Your task to perform on an android device: Clear the shopping cart on bestbuy. Add "usb-a" to the cart on bestbuy, then select checkout. Image 0: 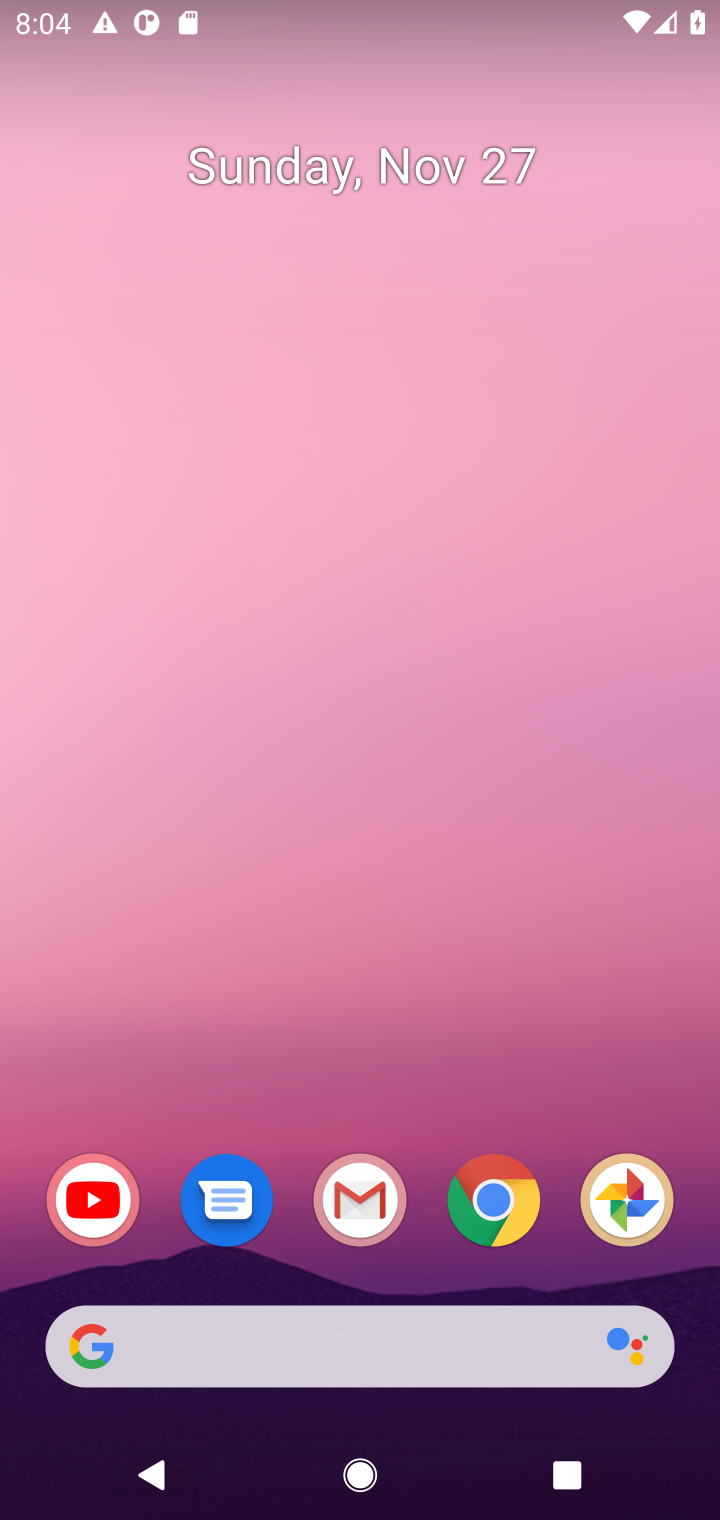
Step 0: click (493, 1207)
Your task to perform on an android device: Clear the shopping cart on bestbuy. Add "usb-a" to the cart on bestbuy, then select checkout. Image 1: 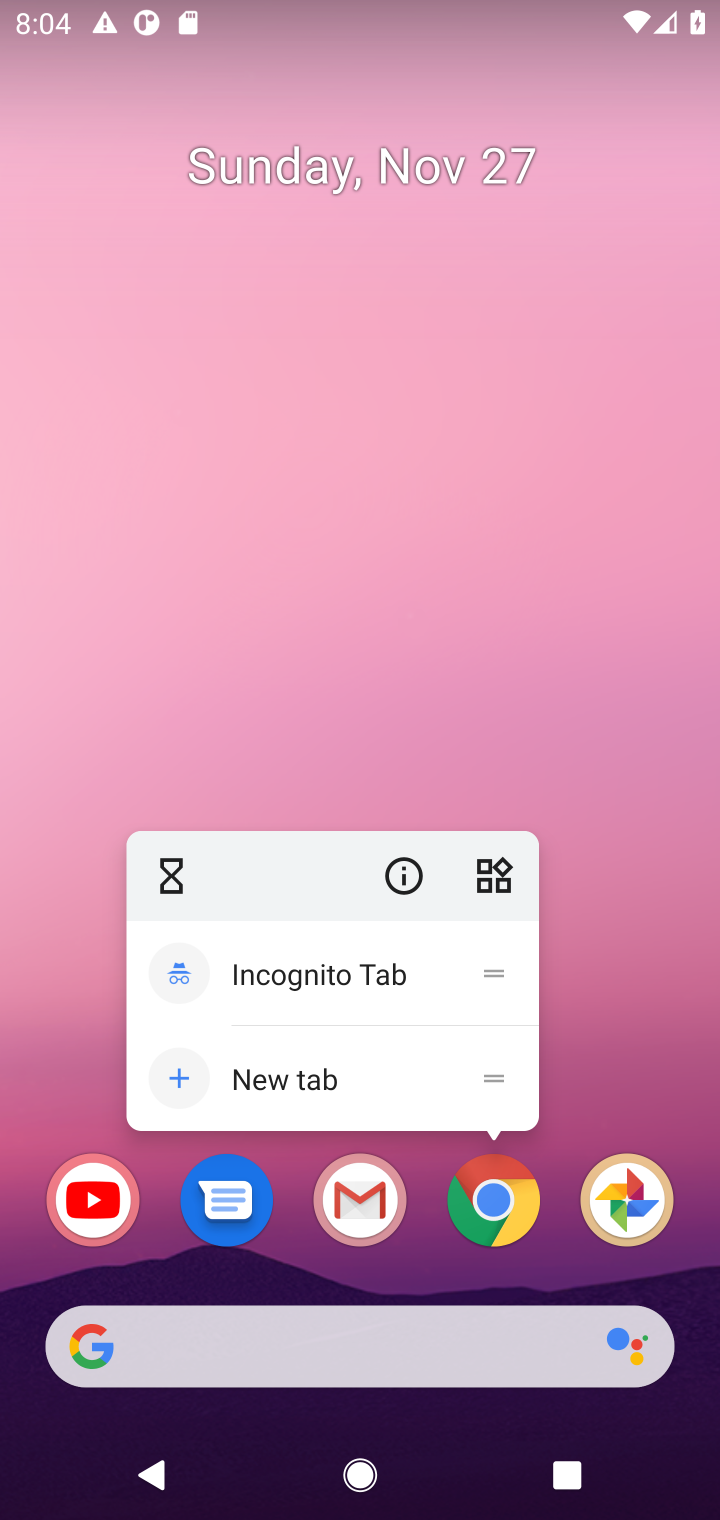
Step 1: click (493, 1207)
Your task to perform on an android device: Clear the shopping cart on bestbuy. Add "usb-a" to the cart on bestbuy, then select checkout. Image 2: 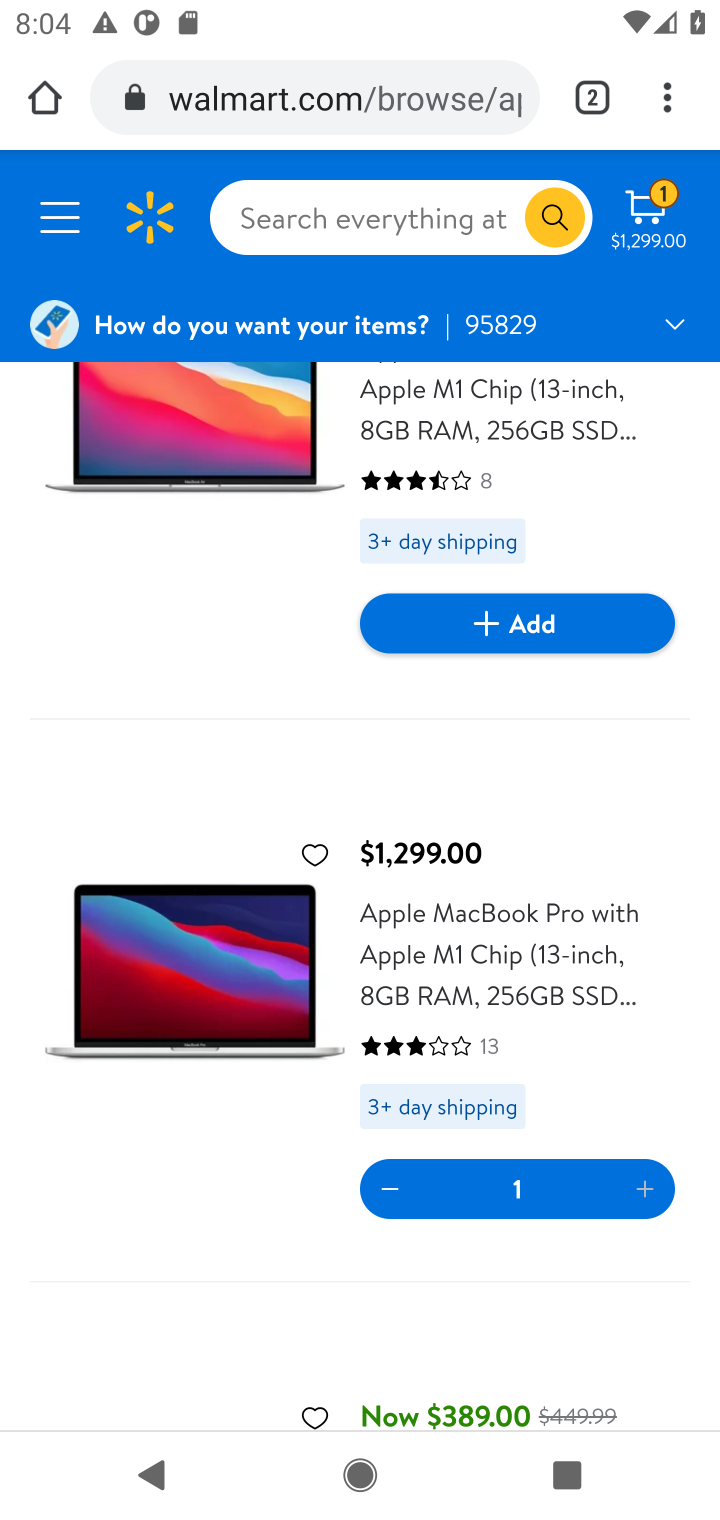
Step 2: click (353, 92)
Your task to perform on an android device: Clear the shopping cart on bestbuy. Add "usb-a" to the cart on bestbuy, then select checkout. Image 3: 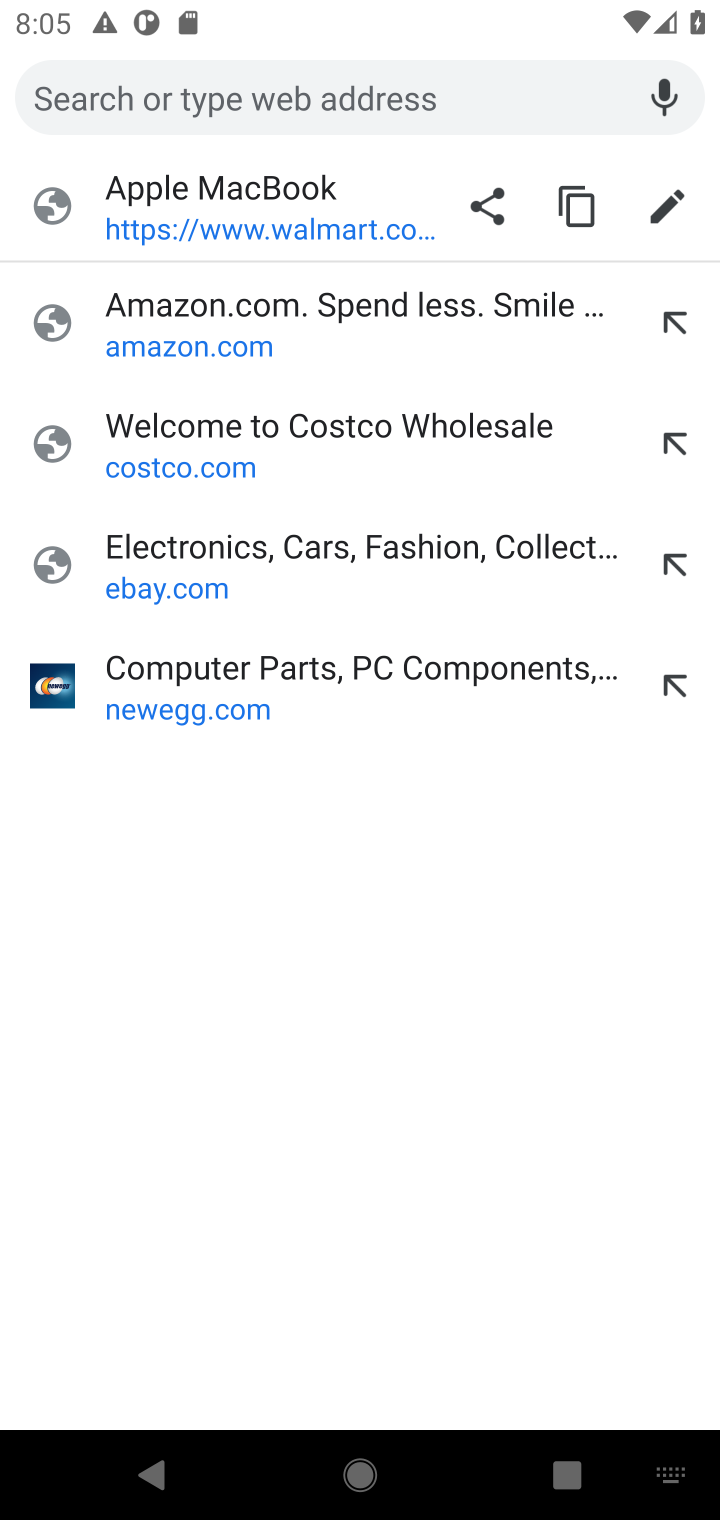
Step 3: type "bestbuy.com"
Your task to perform on an android device: Clear the shopping cart on bestbuy. Add "usb-a" to the cart on bestbuy, then select checkout. Image 4: 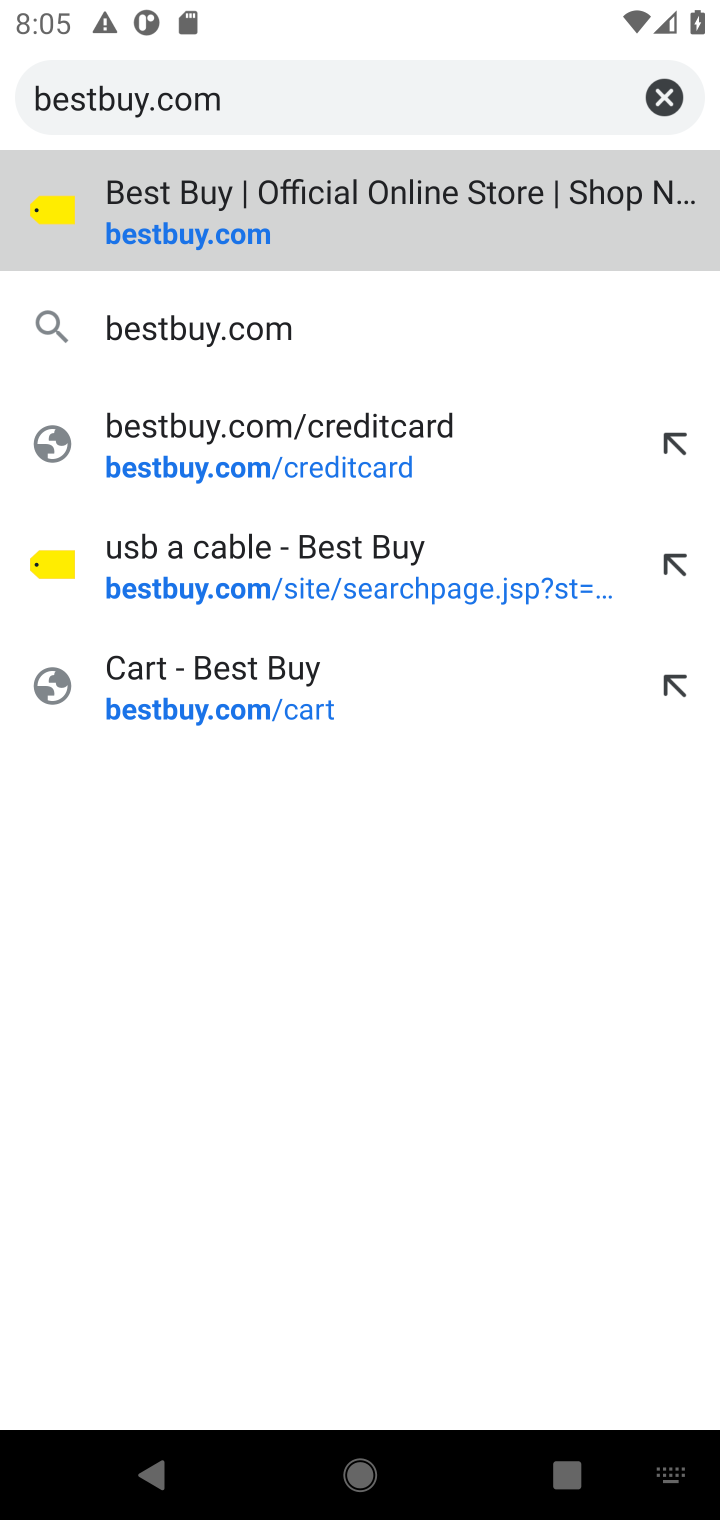
Step 4: click (114, 238)
Your task to perform on an android device: Clear the shopping cart on bestbuy. Add "usb-a" to the cart on bestbuy, then select checkout. Image 5: 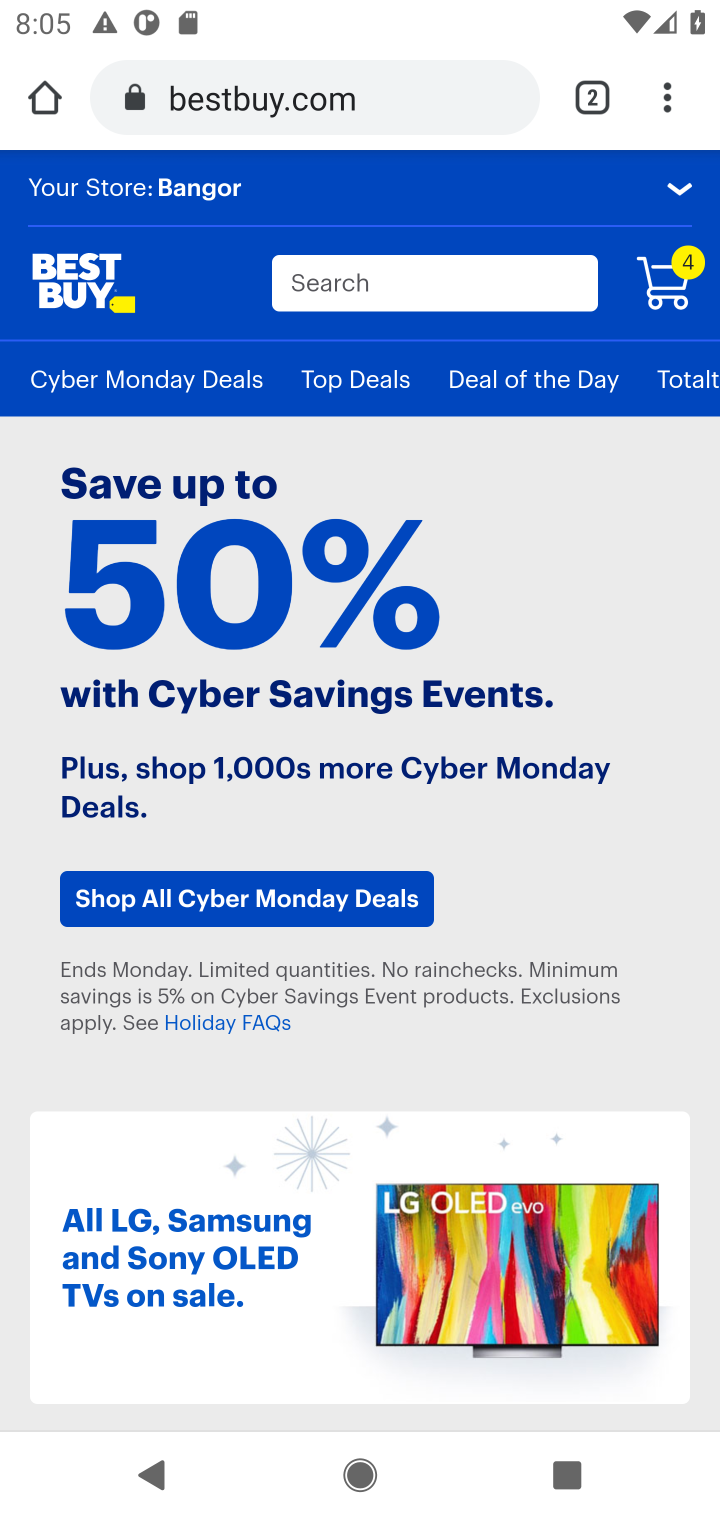
Step 5: click (680, 291)
Your task to perform on an android device: Clear the shopping cart on bestbuy. Add "usb-a" to the cart on bestbuy, then select checkout. Image 6: 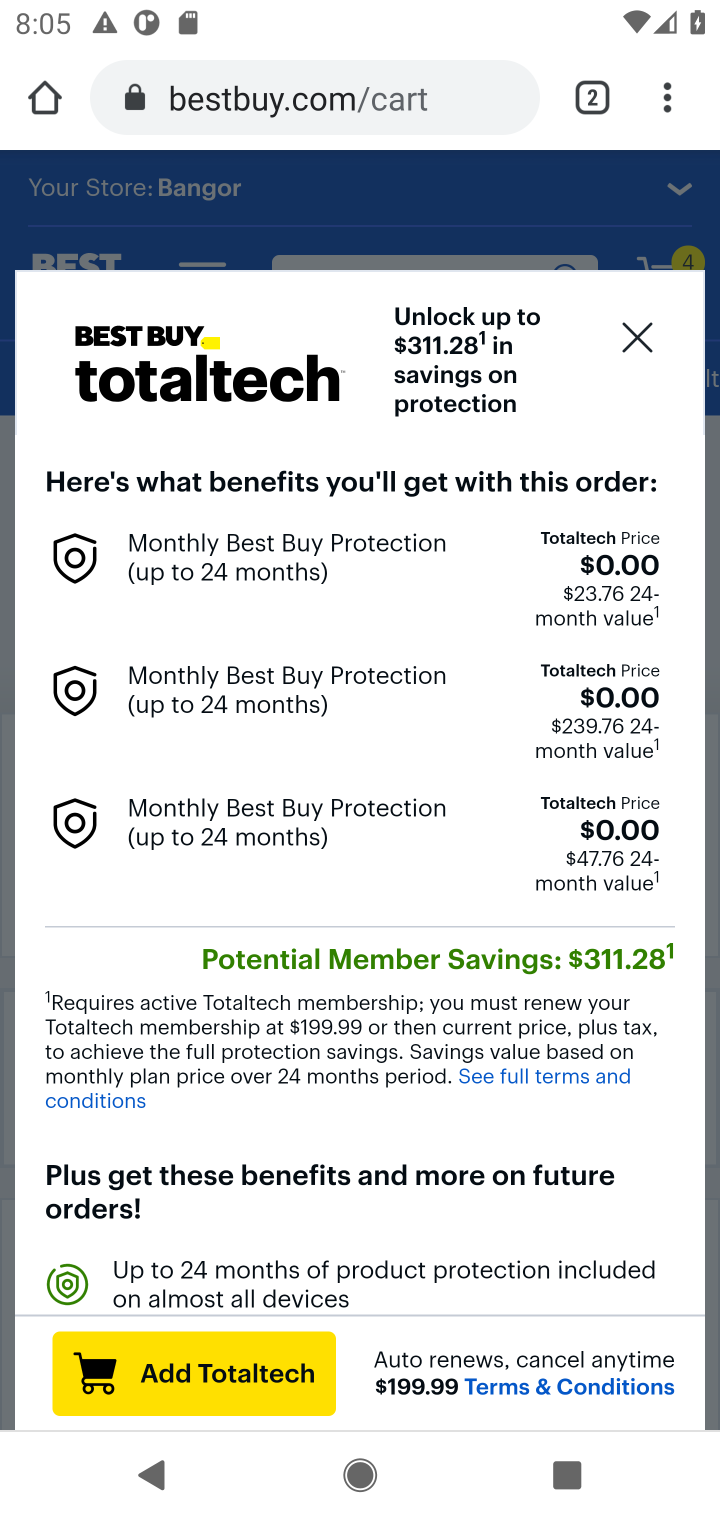
Step 6: click (629, 357)
Your task to perform on an android device: Clear the shopping cart on bestbuy. Add "usb-a" to the cart on bestbuy, then select checkout. Image 7: 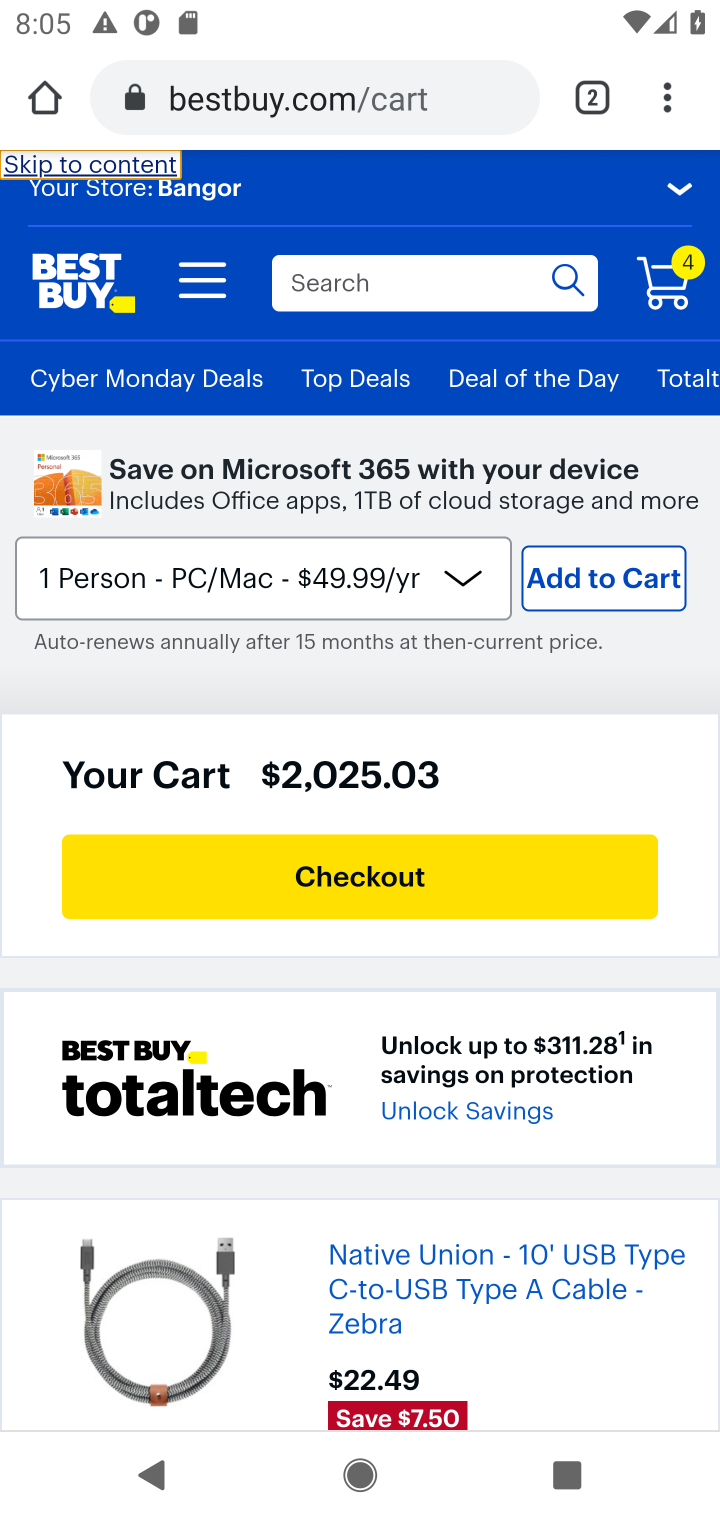
Step 7: drag from (223, 934) to (186, 517)
Your task to perform on an android device: Clear the shopping cart on bestbuy. Add "usb-a" to the cart on bestbuy, then select checkout. Image 8: 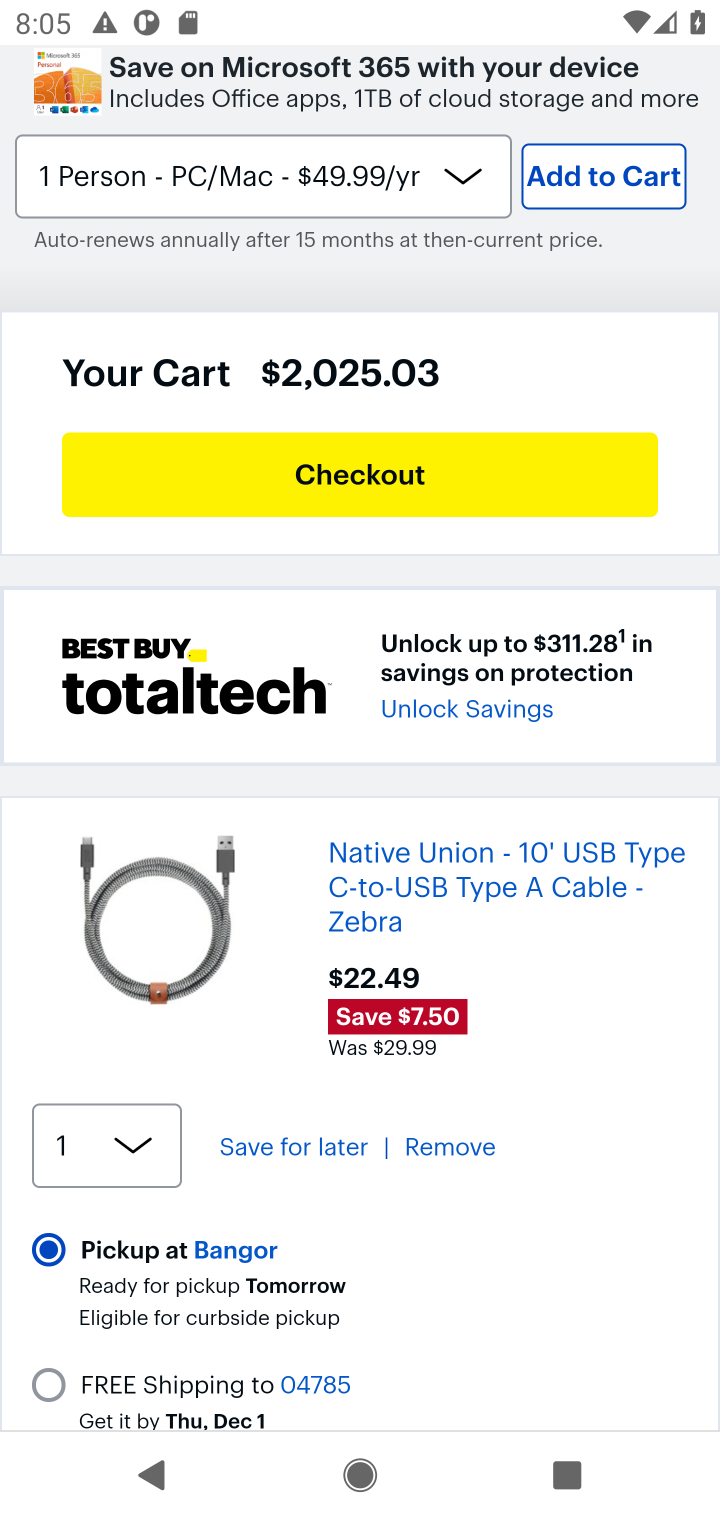
Step 8: click (450, 1148)
Your task to perform on an android device: Clear the shopping cart on bestbuy. Add "usb-a" to the cart on bestbuy, then select checkout. Image 9: 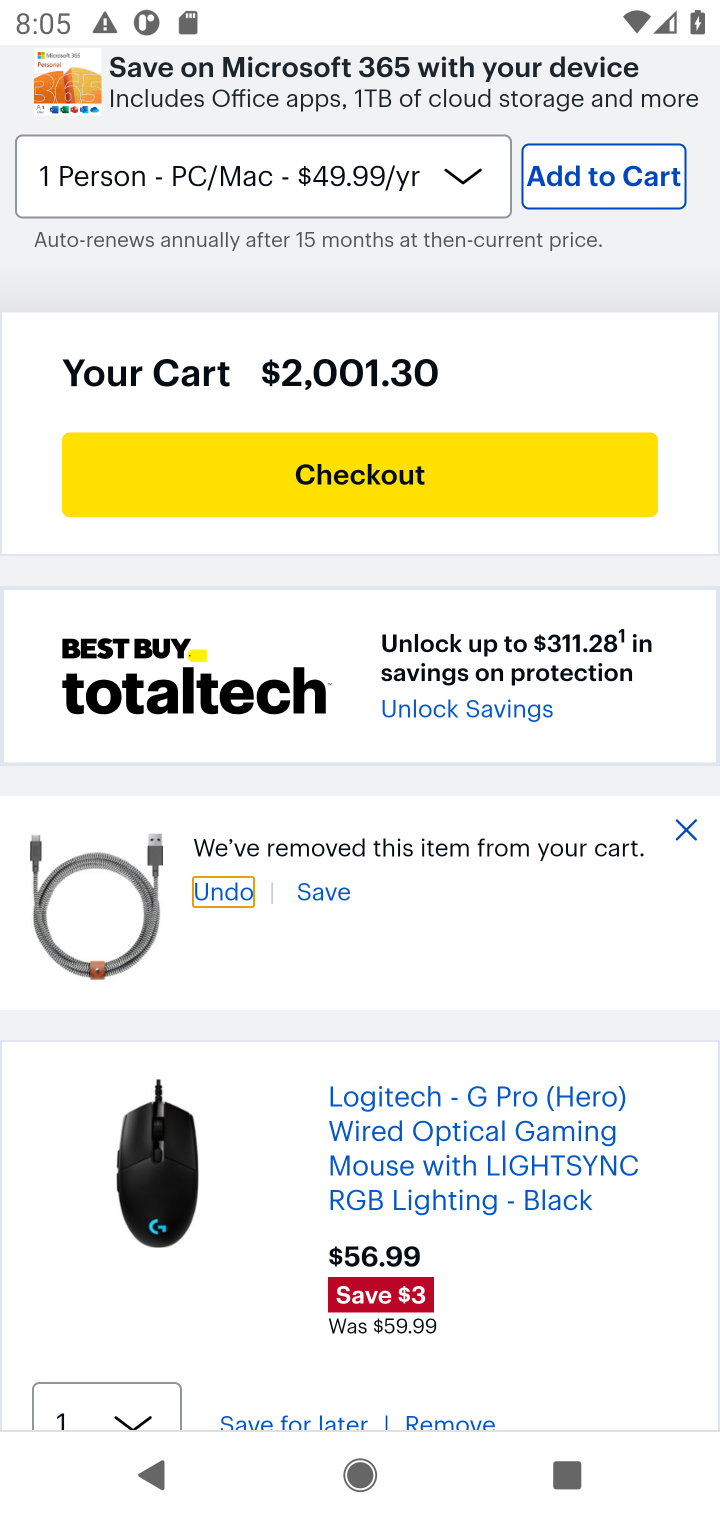
Step 9: drag from (271, 1086) to (136, 825)
Your task to perform on an android device: Clear the shopping cart on bestbuy. Add "usb-a" to the cart on bestbuy, then select checkout. Image 10: 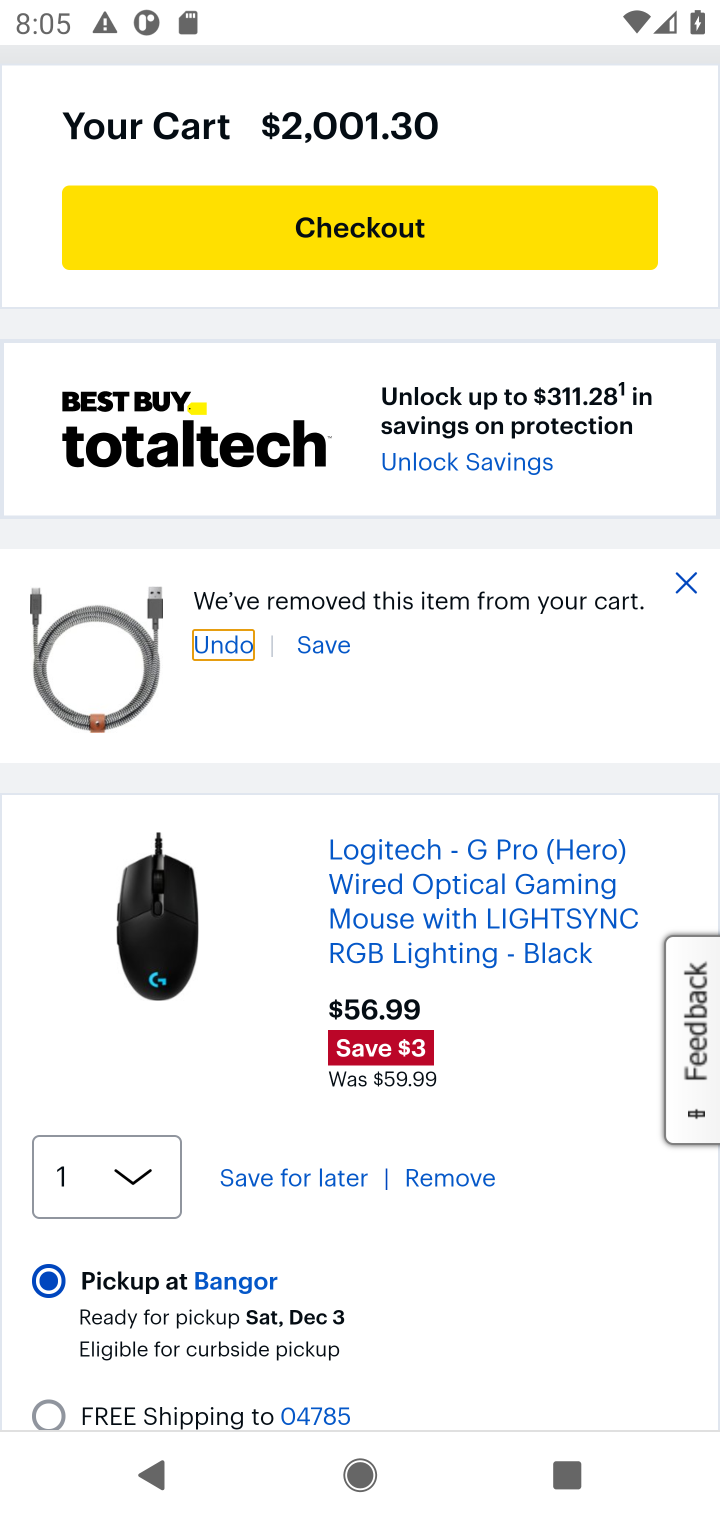
Step 10: click (410, 1189)
Your task to perform on an android device: Clear the shopping cart on bestbuy. Add "usb-a" to the cart on bestbuy, then select checkout. Image 11: 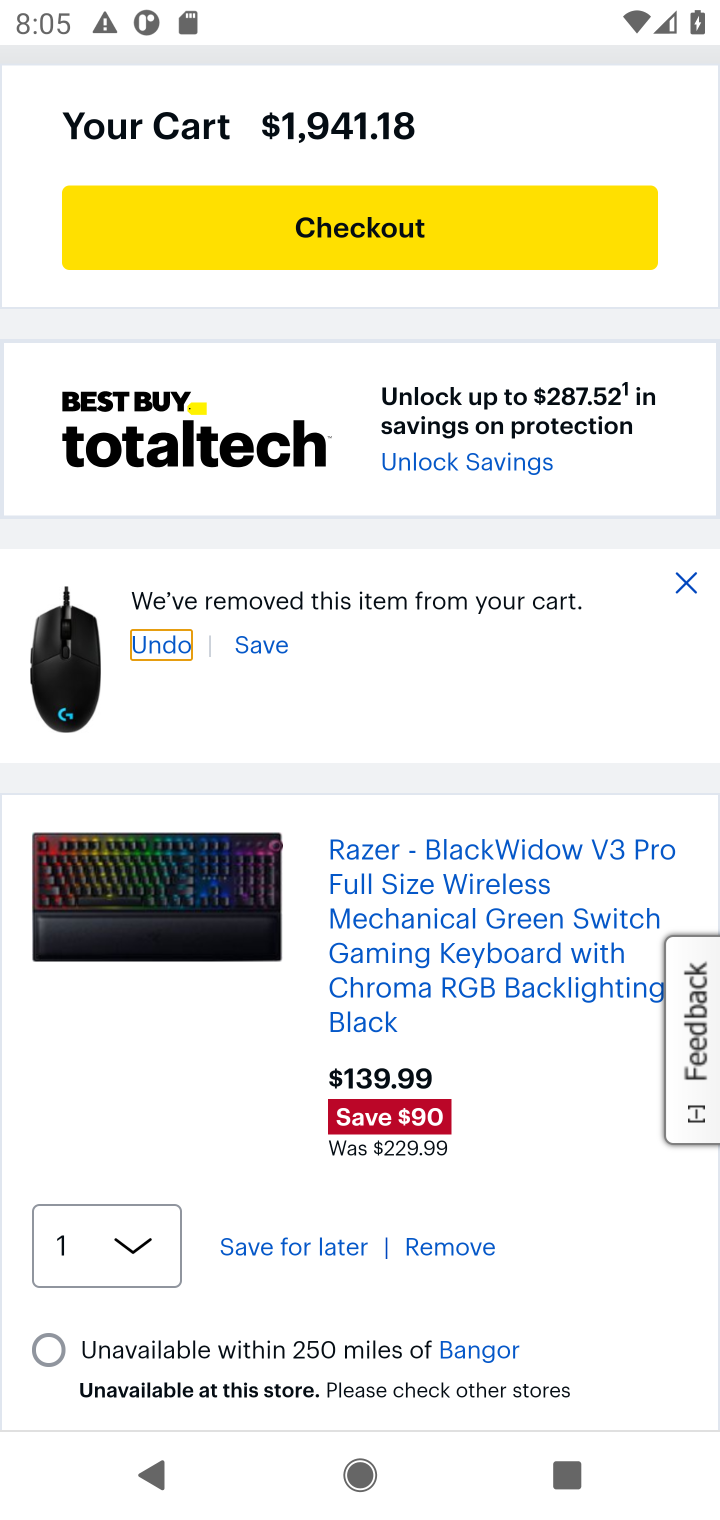
Step 11: click (431, 1249)
Your task to perform on an android device: Clear the shopping cart on bestbuy. Add "usb-a" to the cart on bestbuy, then select checkout. Image 12: 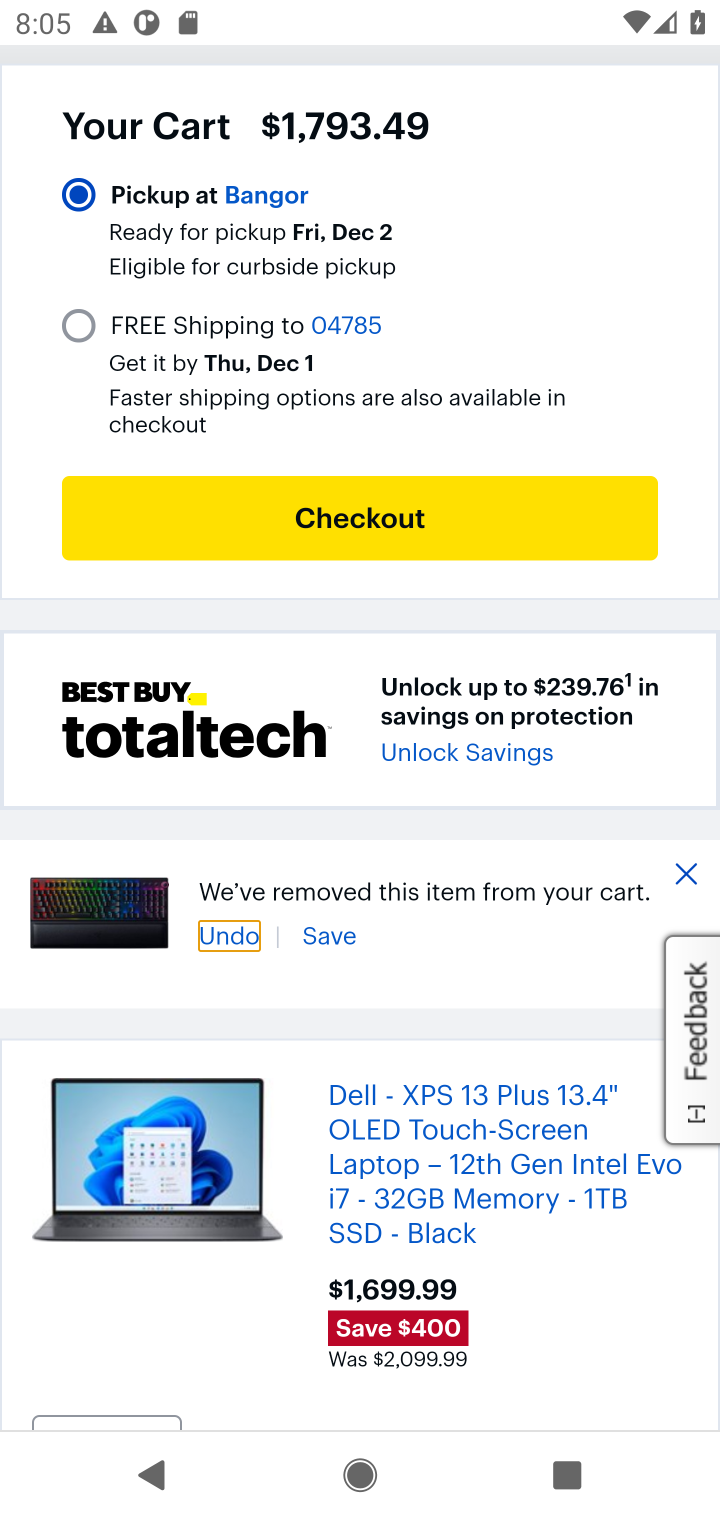
Step 12: drag from (433, 1197) to (392, 904)
Your task to perform on an android device: Clear the shopping cart on bestbuy. Add "usb-a" to the cart on bestbuy, then select checkout. Image 13: 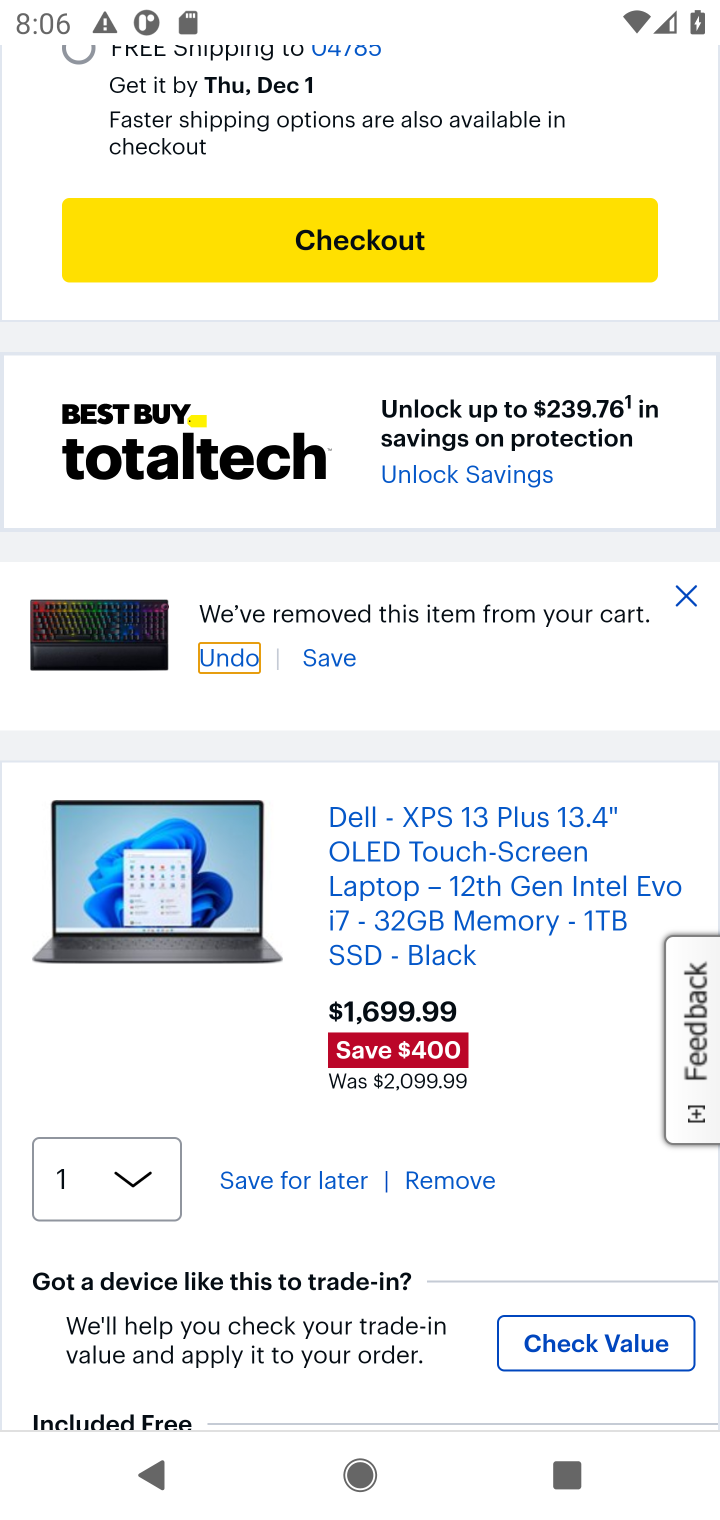
Step 13: click (453, 1179)
Your task to perform on an android device: Clear the shopping cart on bestbuy. Add "usb-a" to the cart on bestbuy, then select checkout. Image 14: 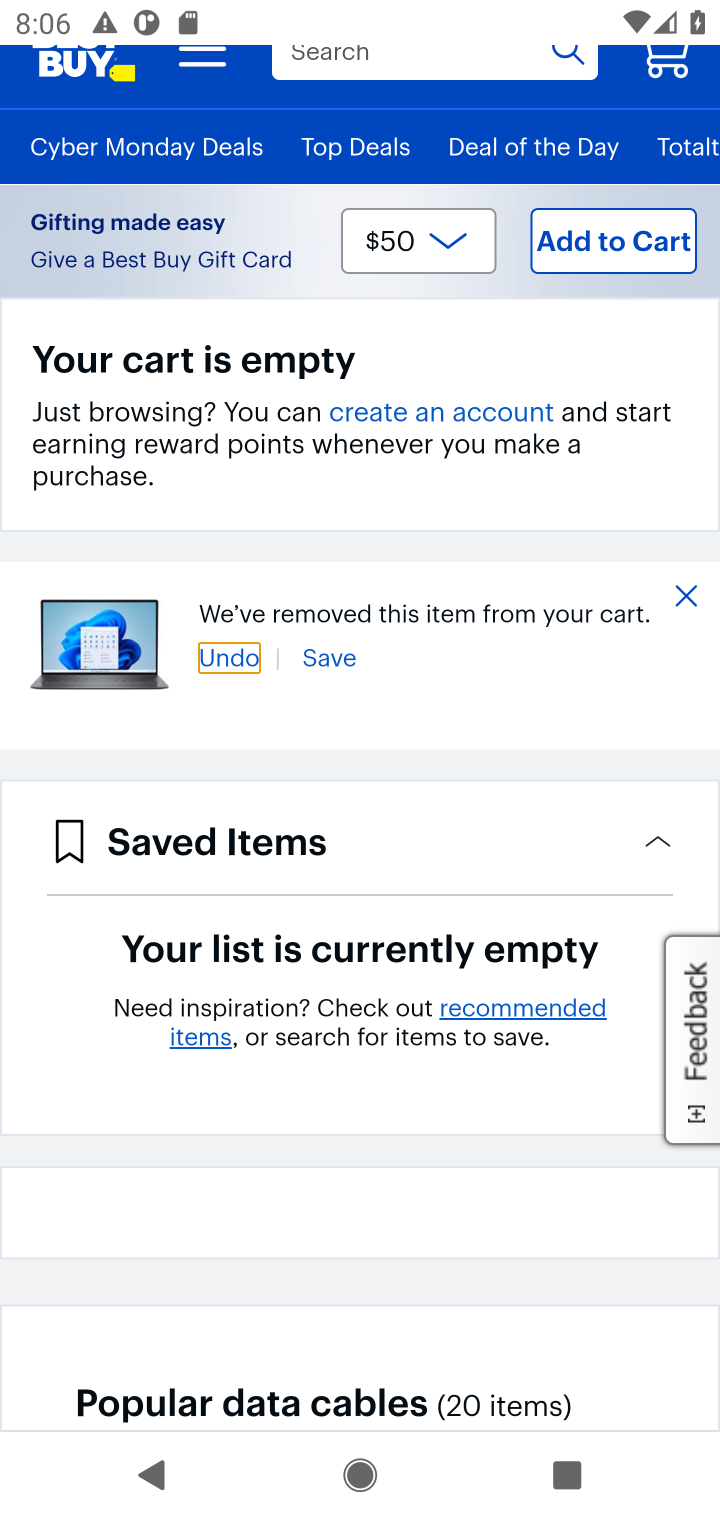
Step 14: drag from (490, 361) to (478, 608)
Your task to perform on an android device: Clear the shopping cart on bestbuy. Add "usb-a" to the cart on bestbuy, then select checkout. Image 15: 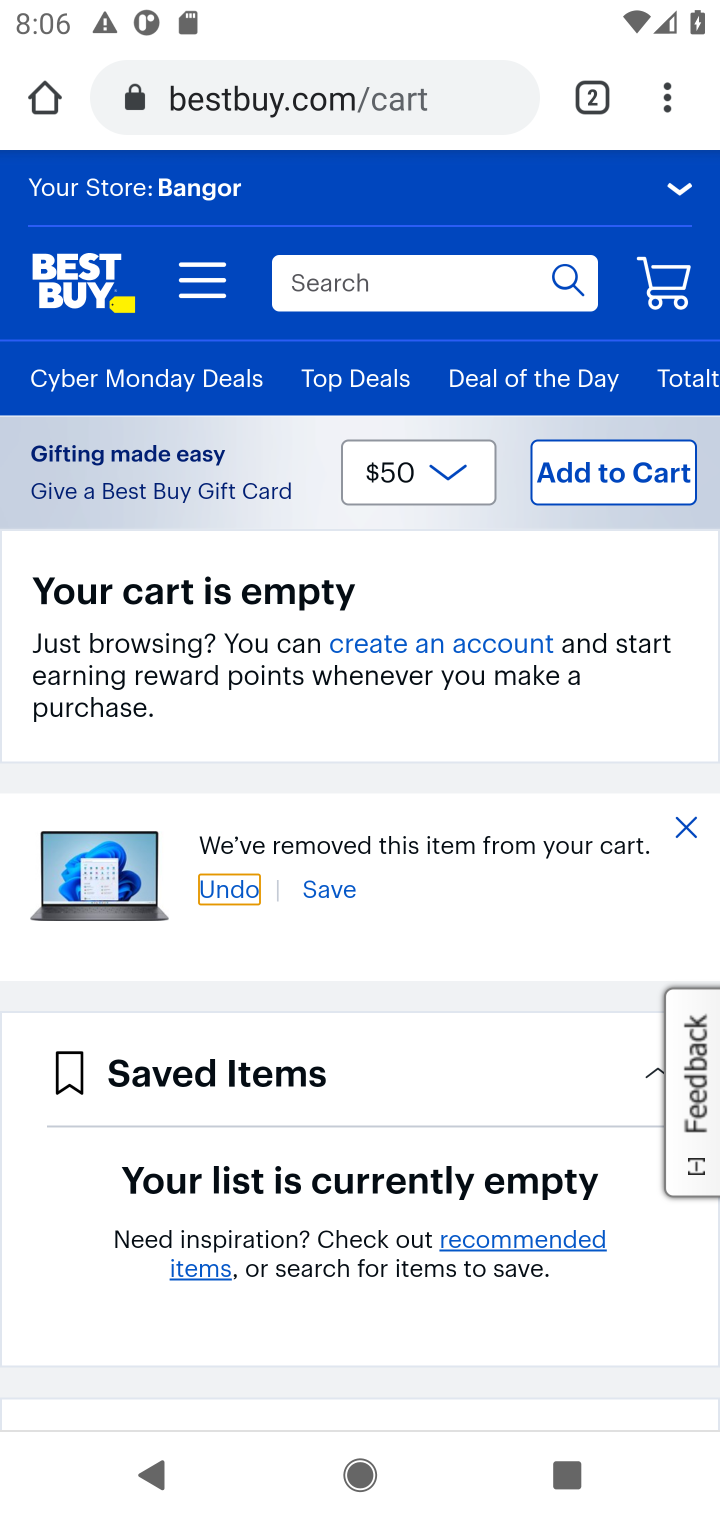
Step 15: click (314, 281)
Your task to perform on an android device: Clear the shopping cart on bestbuy. Add "usb-a" to the cart on bestbuy, then select checkout. Image 16: 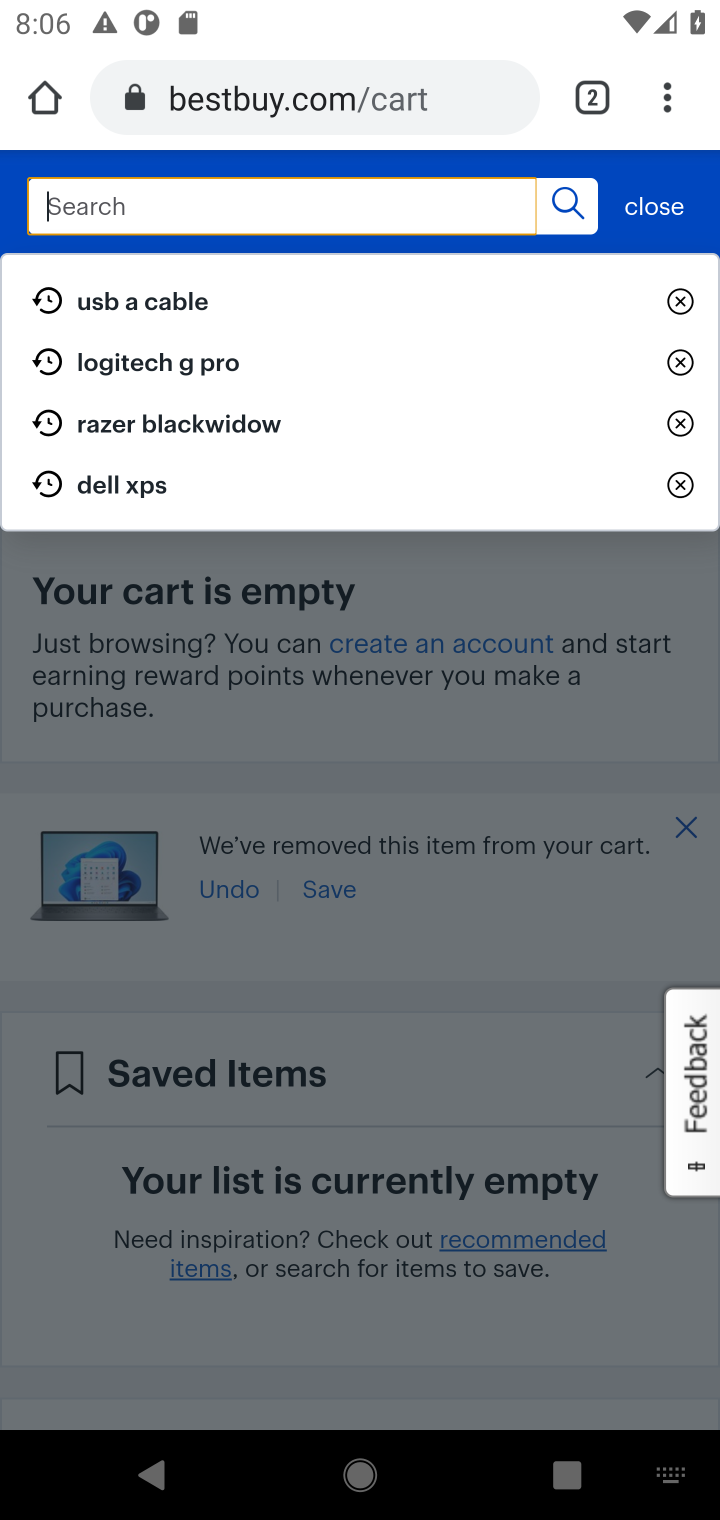
Step 16: type "usb-a"
Your task to perform on an android device: Clear the shopping cart on bestbuy. Add "usb-a" to the cart on bestbuy, then select checkout. Image 17: 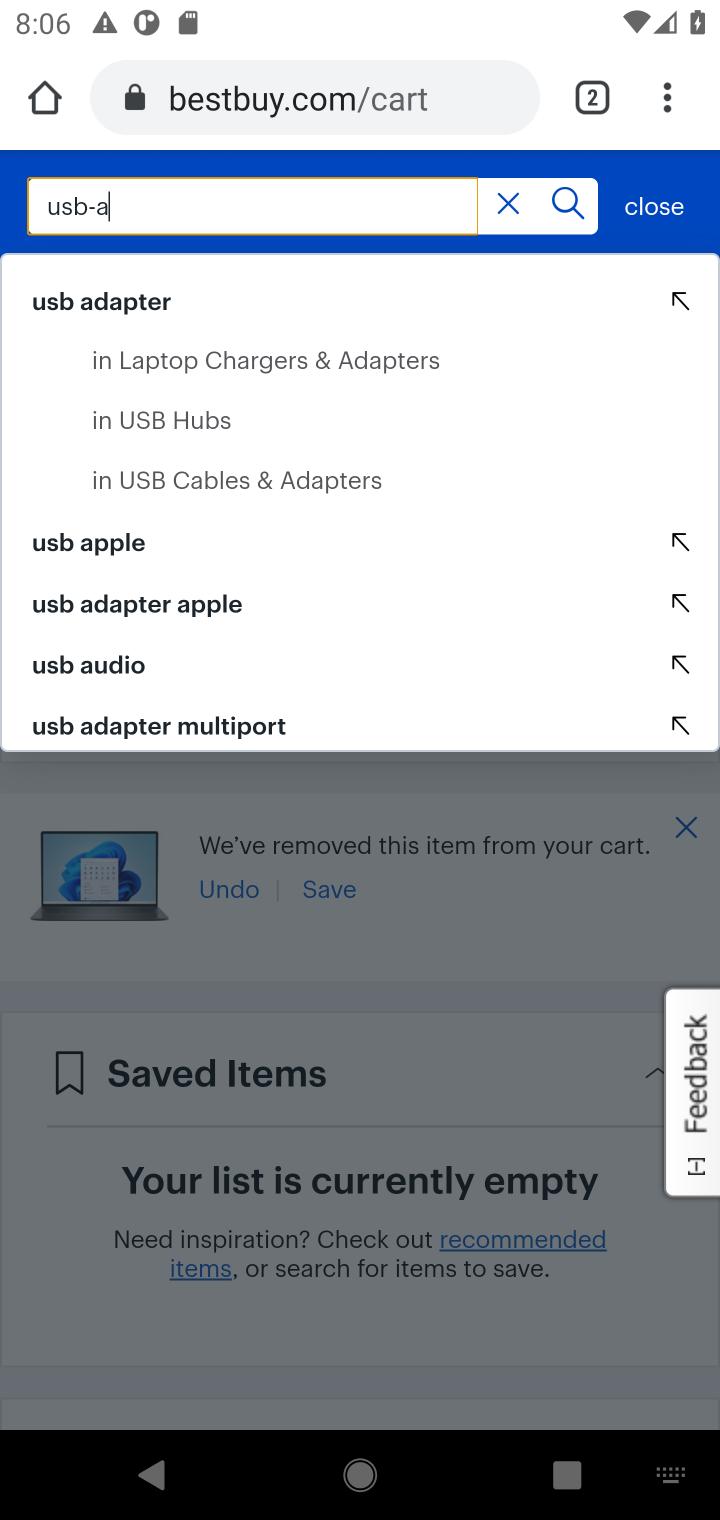
Step 17: click (572, 203)
Your task to perform on an android device: Clear the shopping cart on bestbuy. Add "usb-a" to the cart on bestbuy, then select checkout. Image 18: 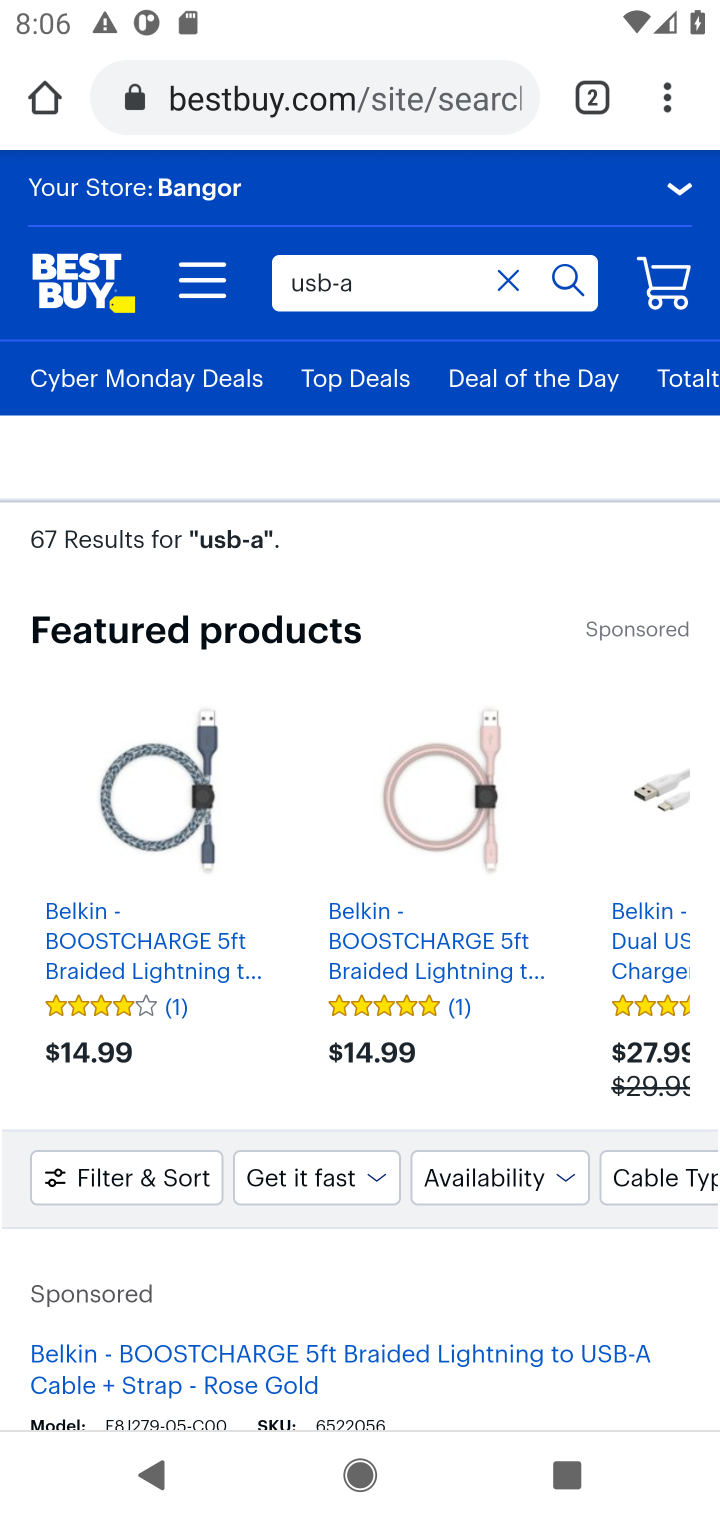
Step 18: drag from (200, 1103) to (227, 584)
Your task to perform on an android device: Clear the shopping cart on bestbuy. Add "usb-a" to the cart on bestbuy, then select checkout. Image 19: 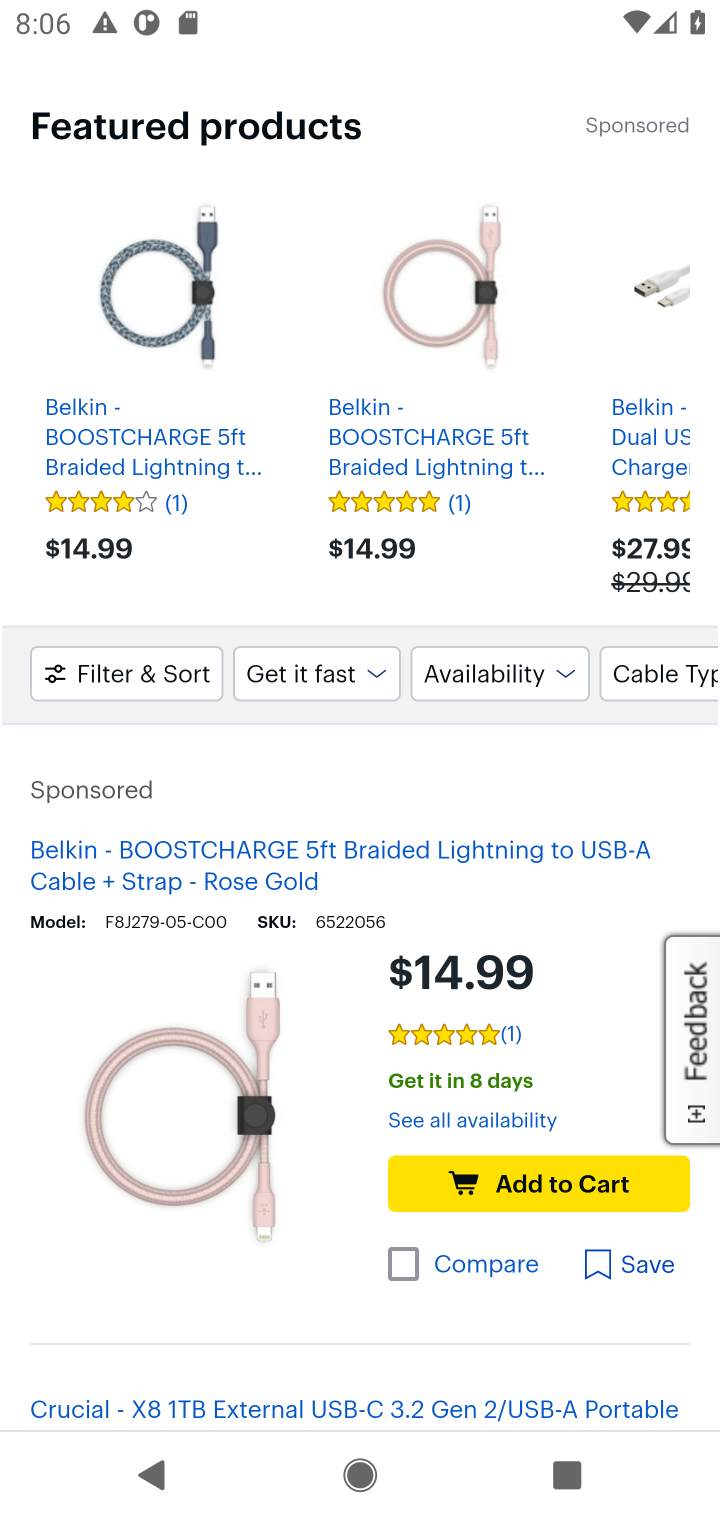
Step 19: click (492, 1186)
Your task to perform on an android device: Clear the shopping cart on bestbuy. Add "usb-a" to the cart on bestbuy, then select checkout. Image 20: 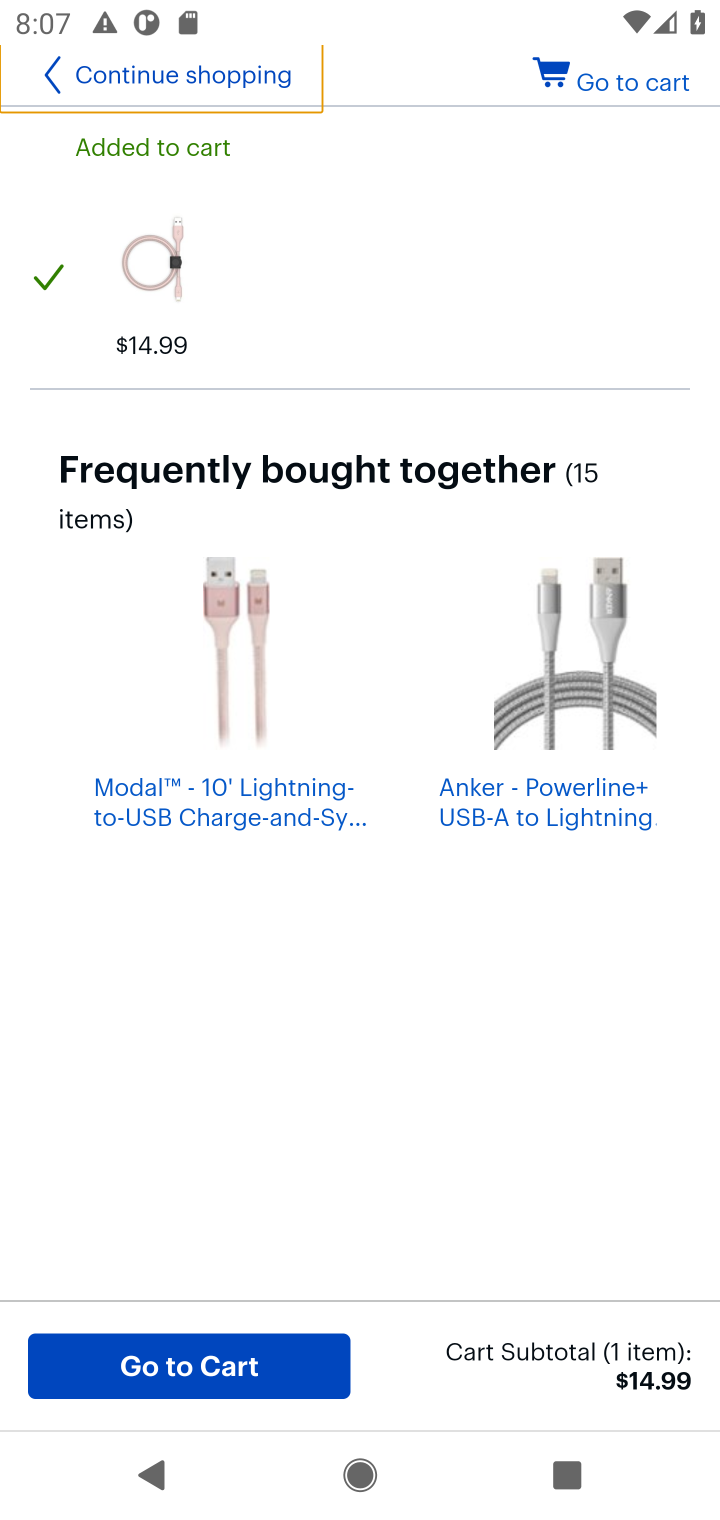
Step 20: click (632, 110)
Your task to perform on an android device: Clear the shopping cart on bestbuy. Add "usb-a" to the cart on bestbuy, then select checkout. Image 21: 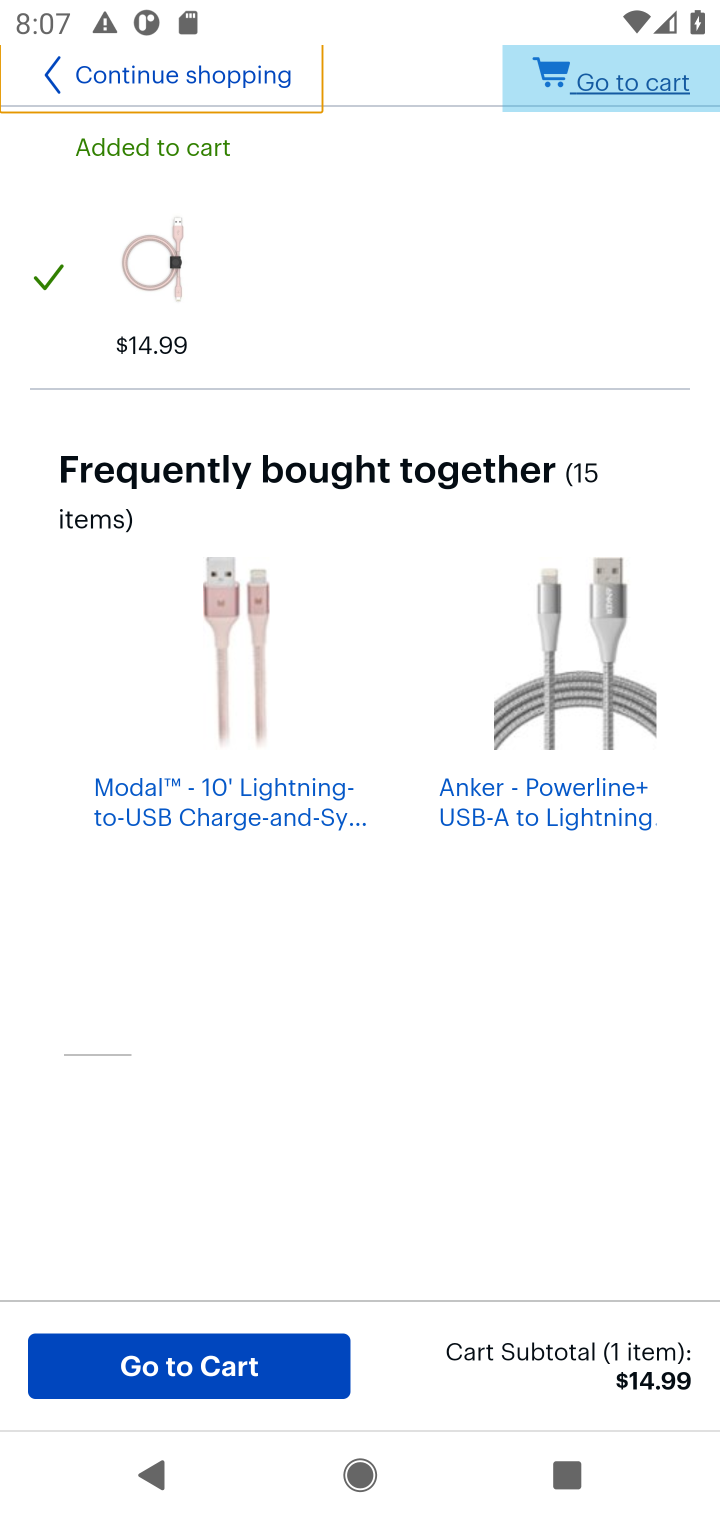
Step 21: click (633, 81)
Your task to perform on an android device: Clear the shopping cart on bestbuy. Add "usb-a" to the cart on bestbuy, then select checkout. Image 22: 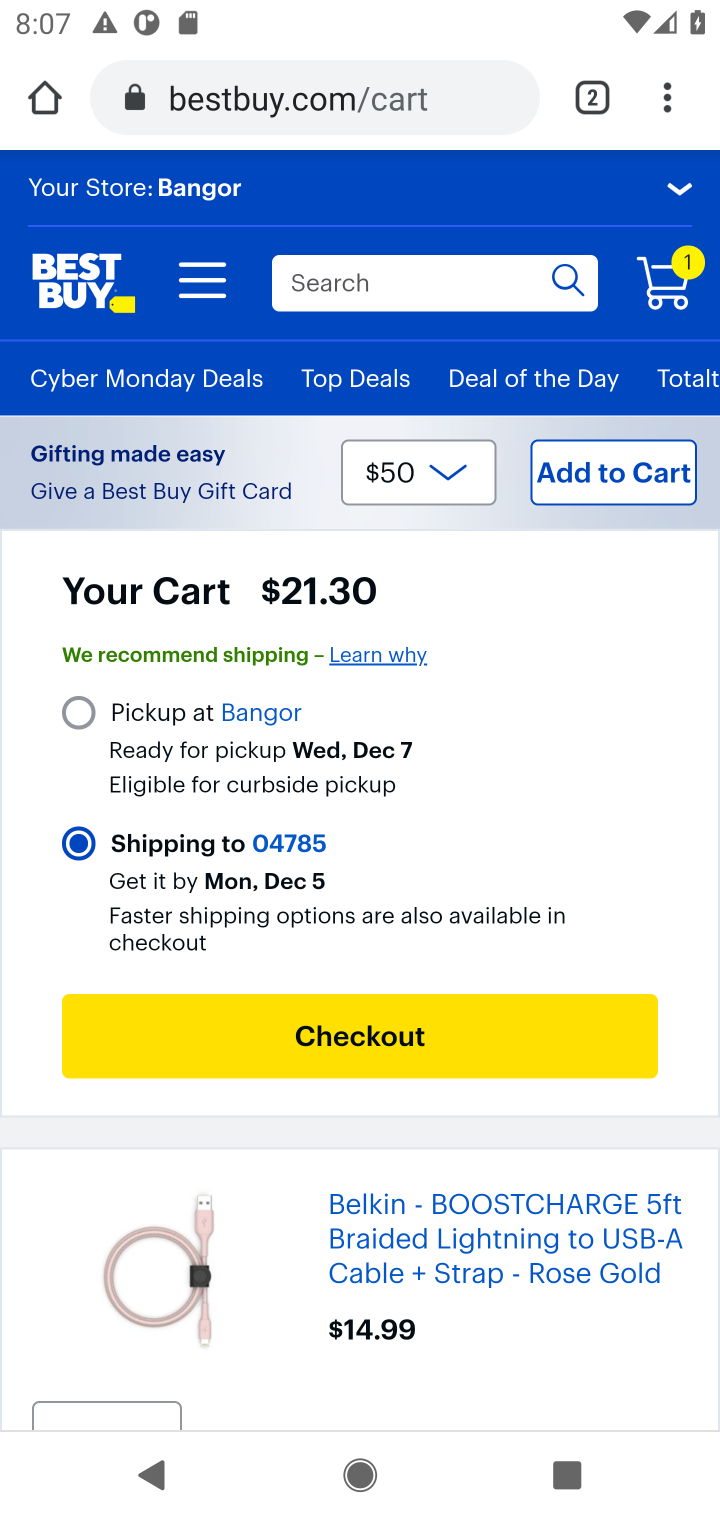
Step 22: click (334, 1046)
Your task to perform on an android device: Clear the shopping cart on bestbuy. Add "usb-a" to the cart on bestbuy, then select checkout. Image 23: 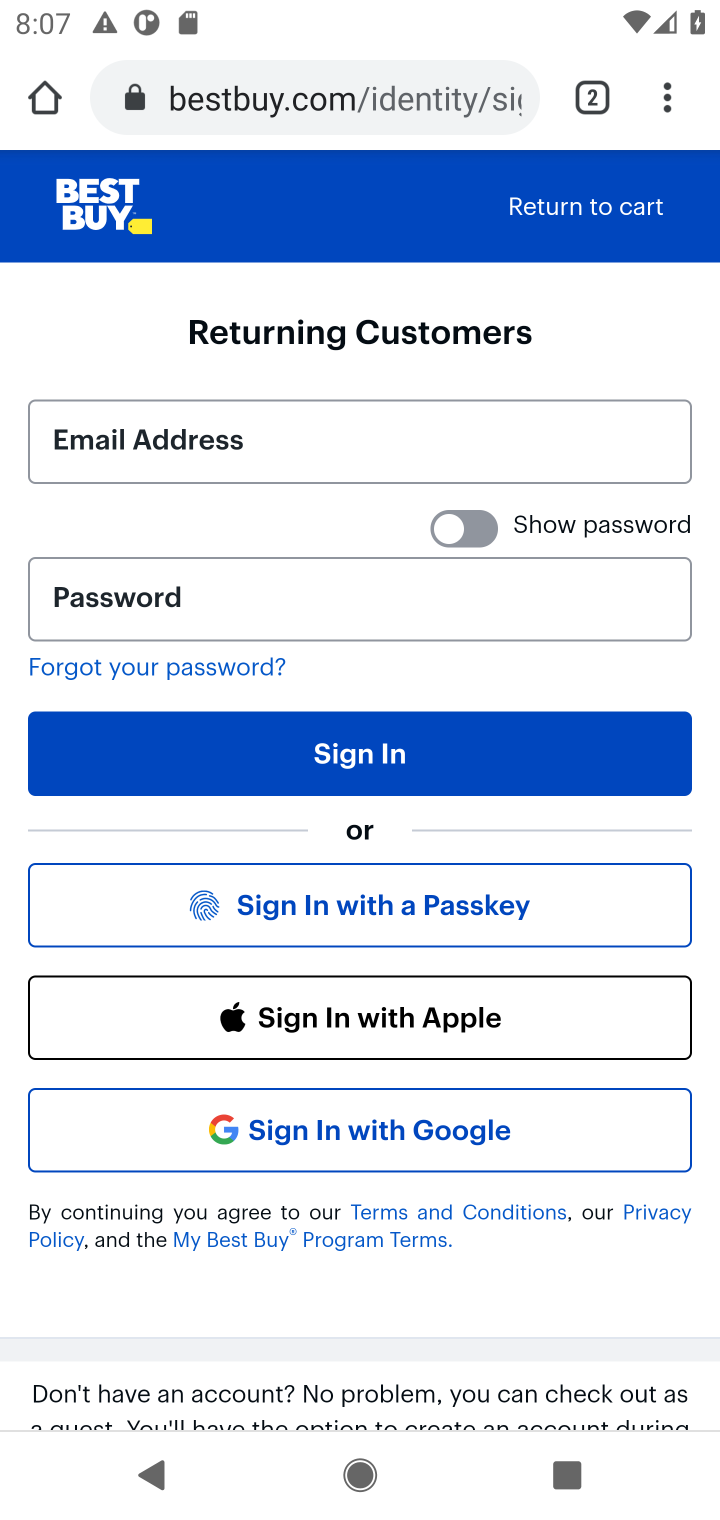
Step 23: task complete